Your task to perform on an android device: Open the Play Movies app and select the watchlist tab. Image 0: 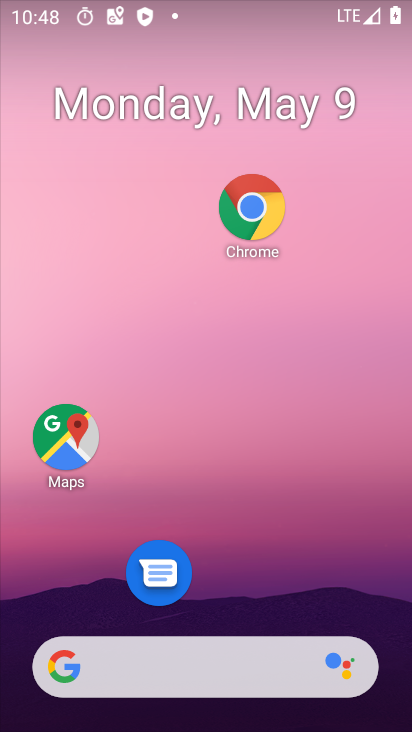
Step 0: drag from (188, 599) to (237, 119)
Your task to perform on an android device: Open the Play Movies app and select the watchlist tab. Image 1: 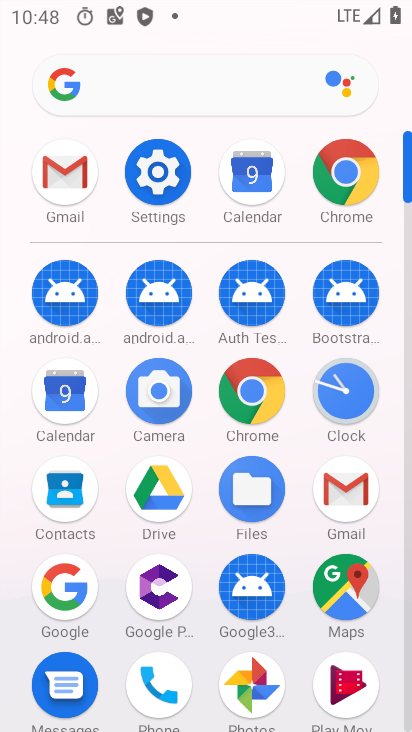
Step 1: drag from (221, 578) to (274, 194)
Your task to perform on an android device: Open the Play Movies app and select the watchlist tab. Image 2: 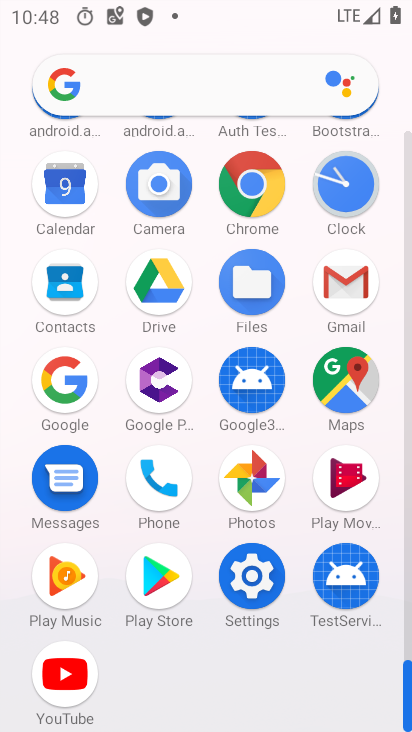
Step 2: click (332, 530)
Your task to perform on an android device: Open the Play Movies app and select the watchlist tab. Image 3: 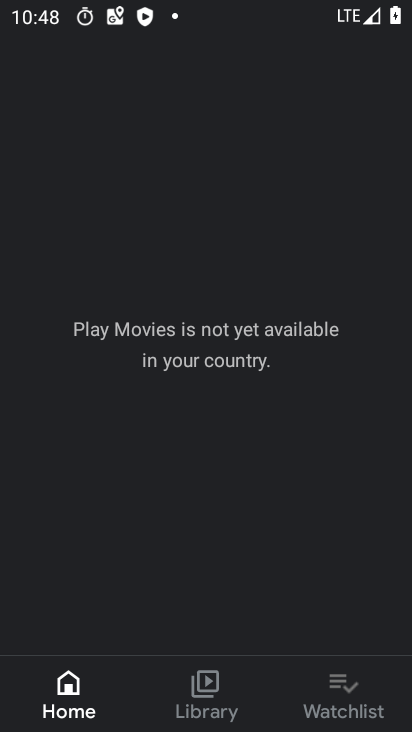
Step 3: click (325, 680)
Your task to perform on an android device: Open the Play Movies app and select the watchlist tab. Image 4: 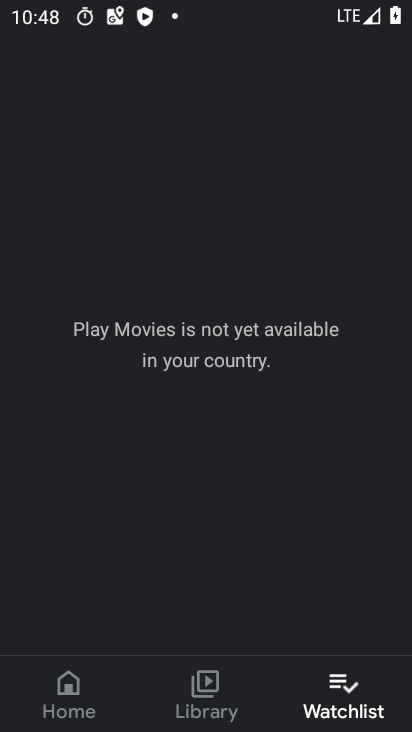
Step 4: task complete